Your task to perform on an android device: Do I have any events this weekend? Image 0: 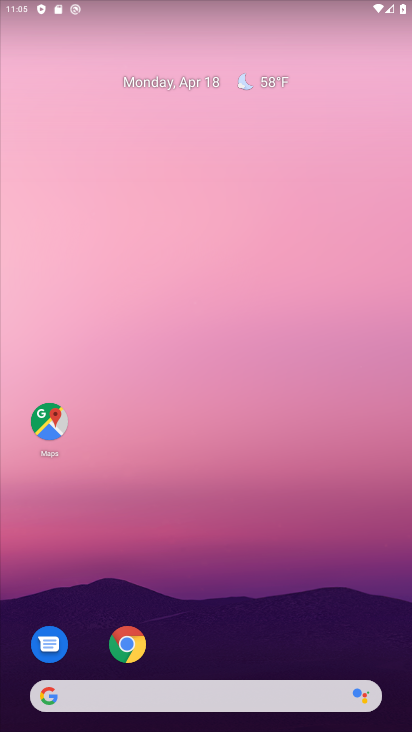
Step 0: drag from (204, 493) to (206, 159)
Your task to perform on an android device: Do I have any events this weekend? Image 1: 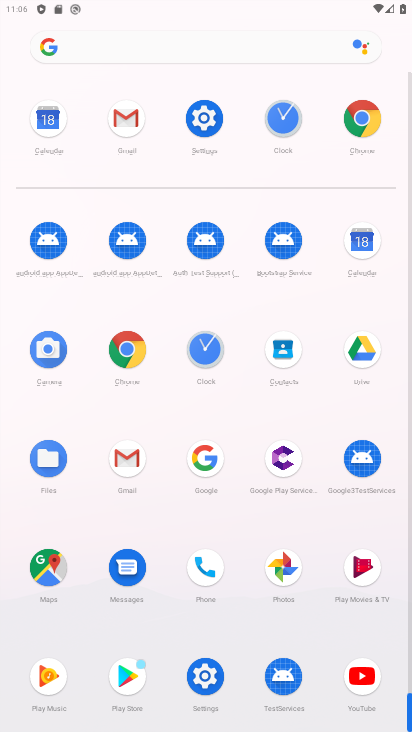
Step 1: click (353, 254)
Your task to perform on an android device: Do I have any events this weekend? Image 2: 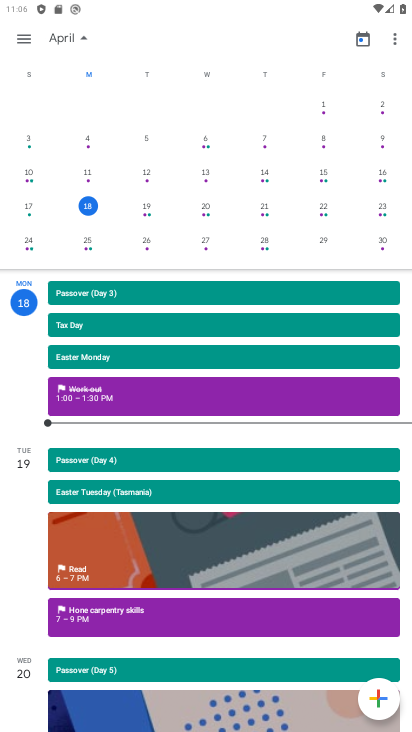
Step 2: click (28, 142)
Your task to perform on an android device: Do I have any events this weekend? Image 3: 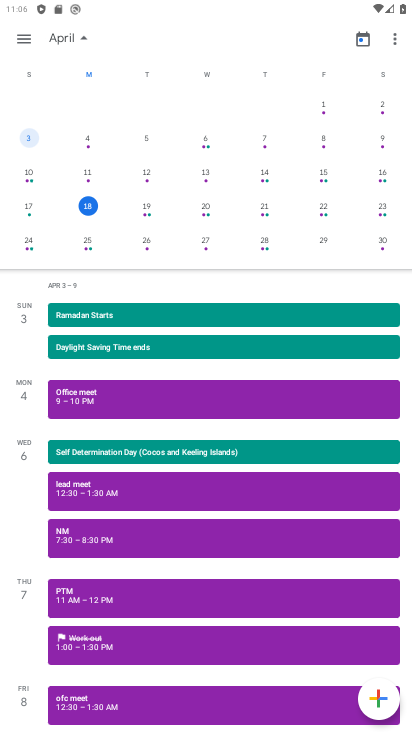
Step 3: click (32, 170)
Your task to perform on an android device: Do I have any events this weekend? Image 4: 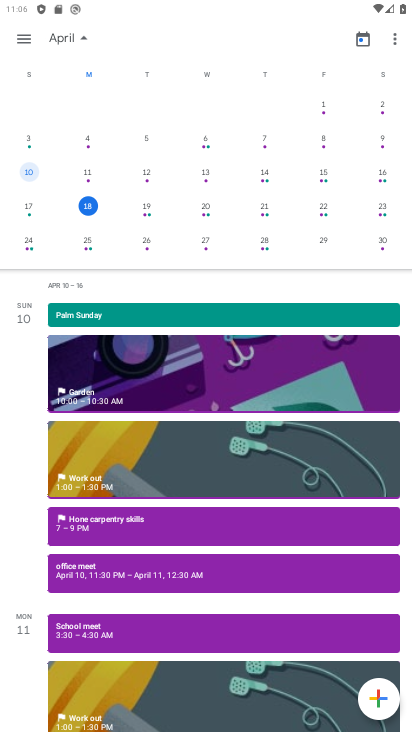
Step 4: click (26, 215)
Your task to perform on an android device: Do I have any events this weekend? Image 5: 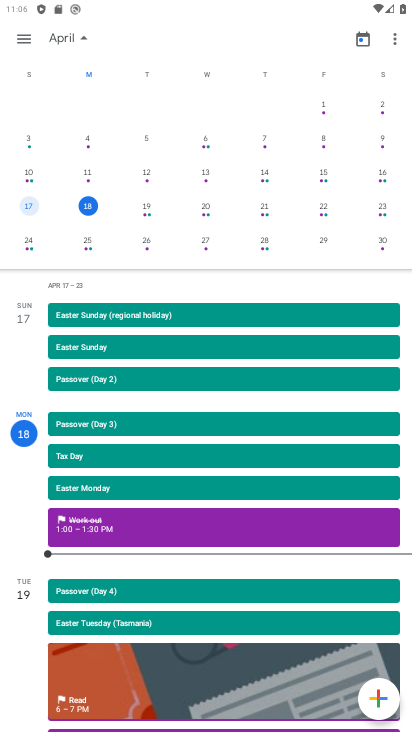
Step 5: click (30, 246)
Your task to perform on an android device: Do I have any events this weekend? Image 6: 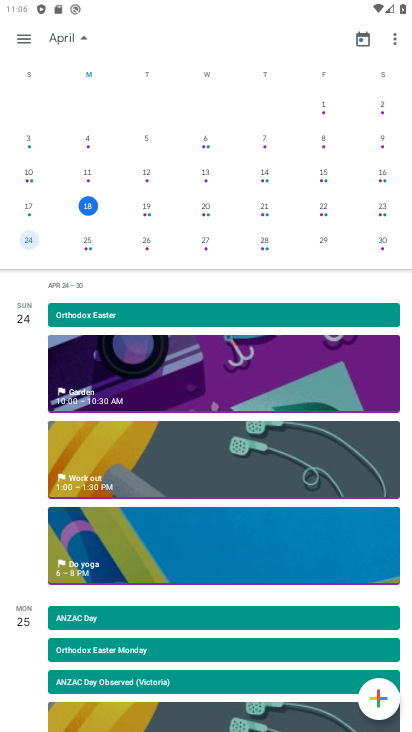
Step 6: click (378, 110)
Your task to perform on an android device: Do I have any events this weekend? Image 7: 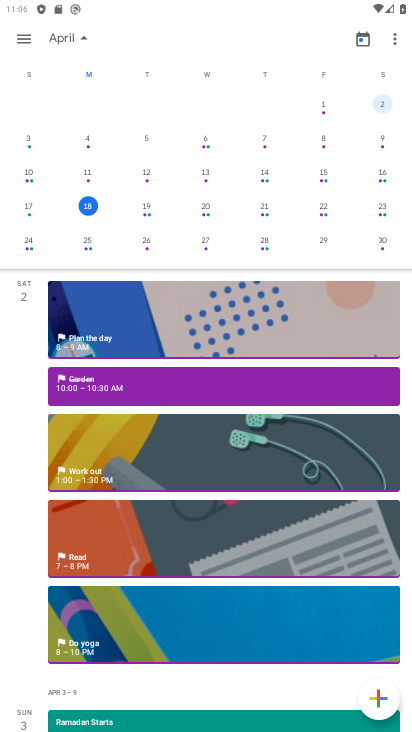
Step 7: click (383, 141)
Your task to perform on an android device: Do I have any events this weekend? Image 8: 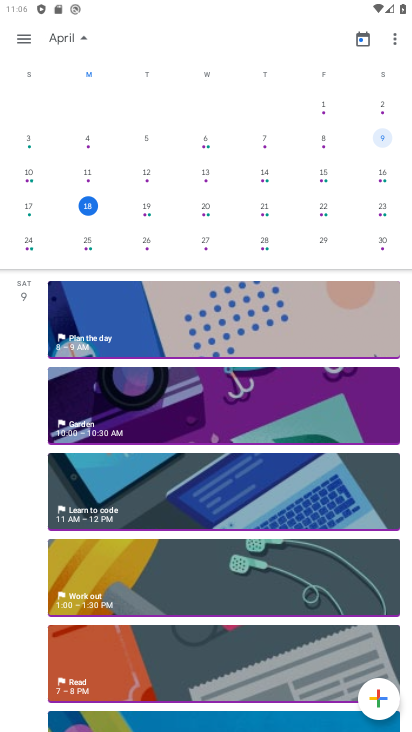
Step 8: click (383, 169)
Your task to perform on an android device: Do I have any events this weekend? Image 9: 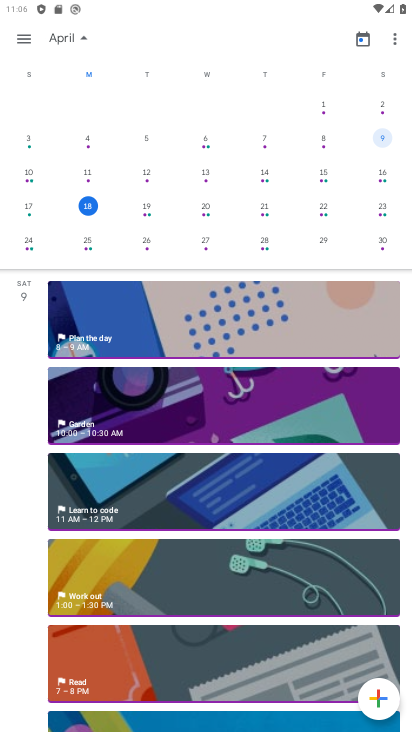
Step 9: click (381, 209)
Your task to perform on an android device: Do I have any events this weekend? Image 10: 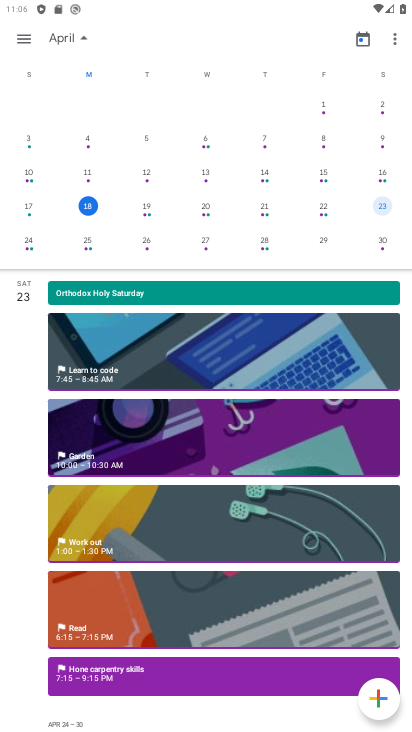
Step 10: click (383, 240)
Your task to perform on an android device: Do I have any events this weekend? Image 11: 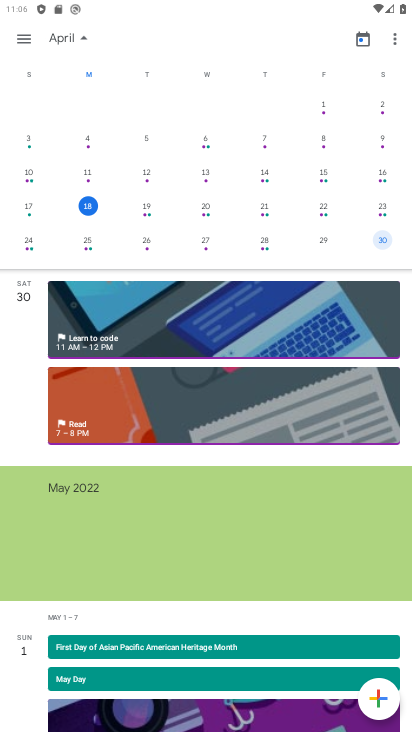
Step 11: task complete